Your task to perform on an android device: toggle data saver in the chrome app Image 0: 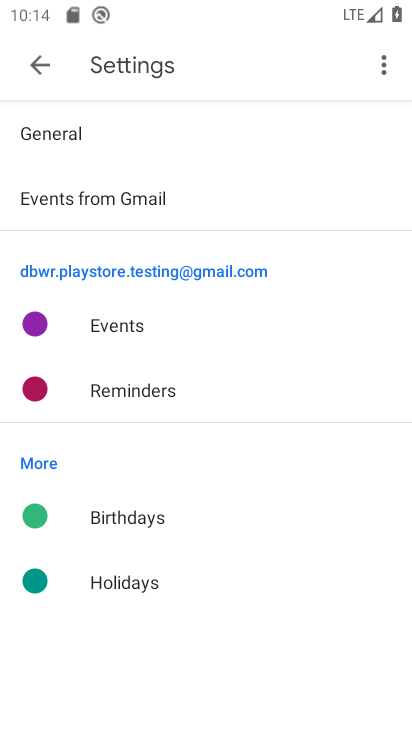
Step 0: press home button
Your task to perform on an android device: toggle data saver in the chrome app Image 1: 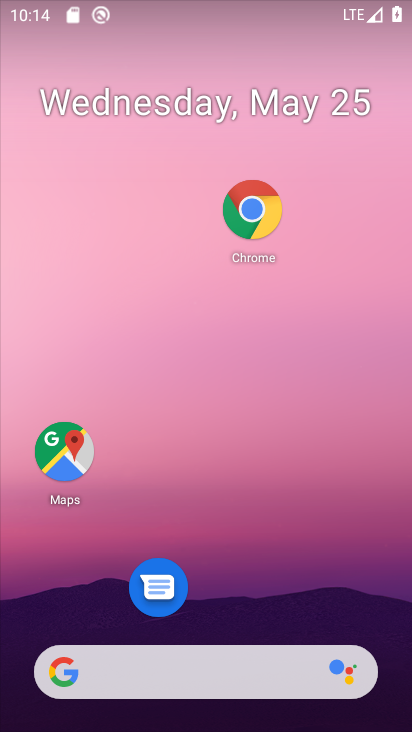
Step 1: drag from (235, 591) to (287, 171)
Your task to perform on an android device: toggle data saver in the chrome app Image 2: 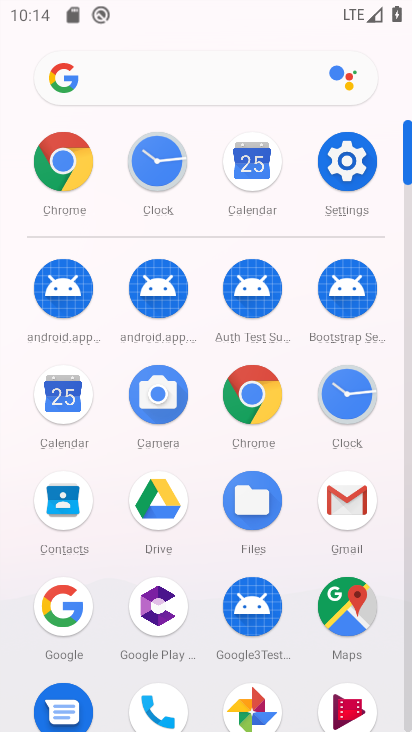
Step 2: click (271, 411)
Your task to perform on an android device: toggle data saver in the chrome app Image 3: 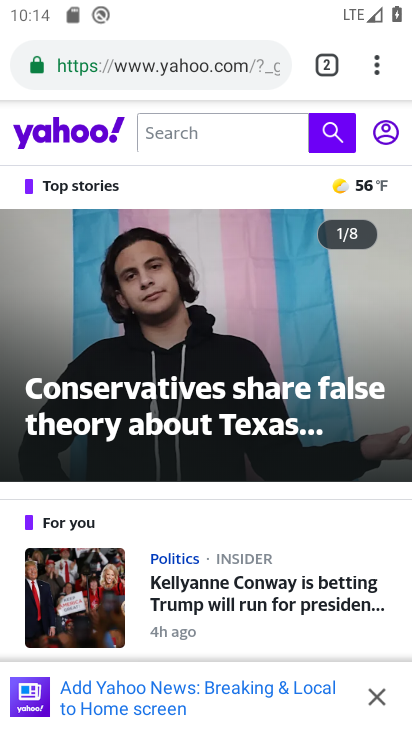
Step 3: click (373, 72)
Your task to perform on an android device: toggle data saver in the chrome app Image 4: 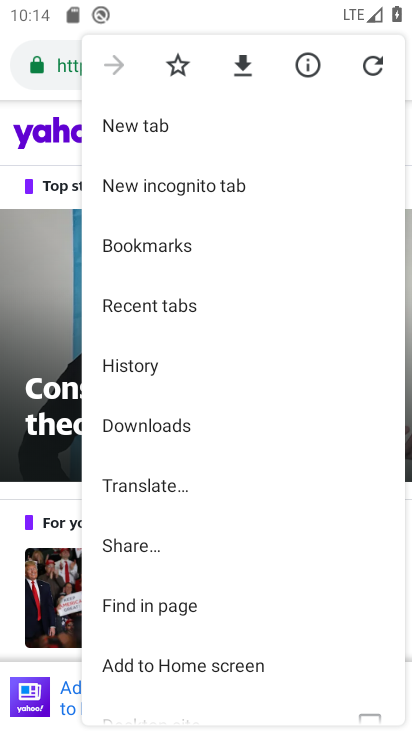
Step 4: drag from (184, 656) to (239, 307)
Your task to perform on an android device: toggle data saver in the chrome app Image 5: 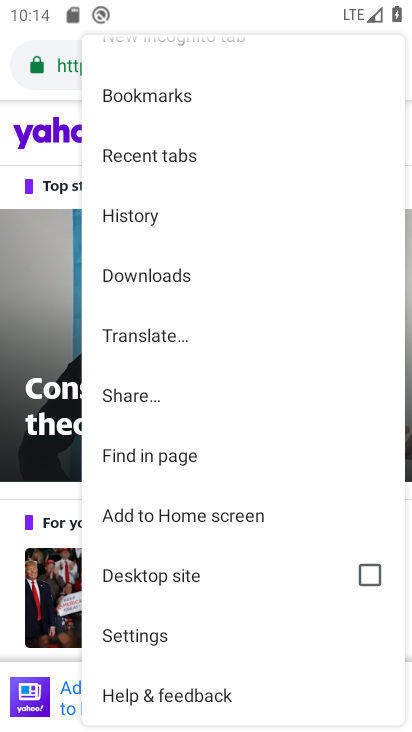
Step 5: click (172, 635)
Your task to perform on an android device: toggle data saver in the chrome app Image 6: 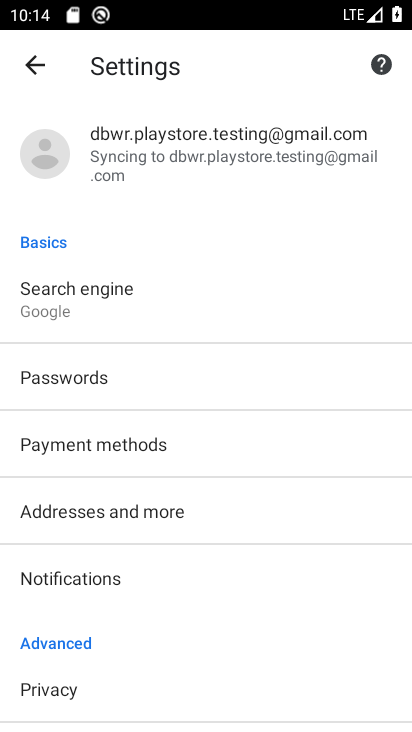
Step 6: drag from (109, 597) to (125, 283)
Your task to perform on an android device: toggle data saver in the chrome app Image 7: 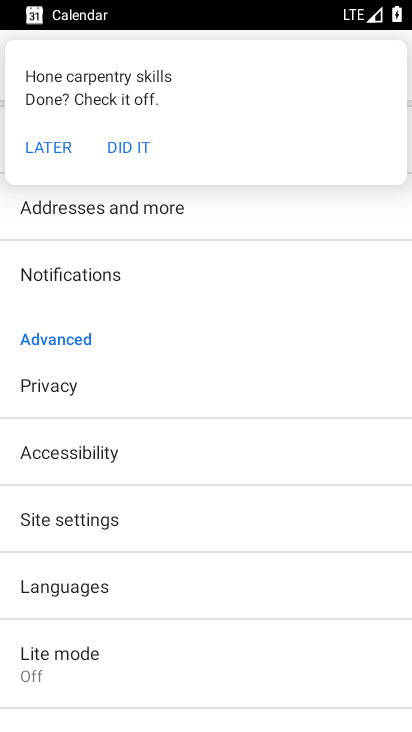
Step 7: click (74, 657)
Your task to perform on an android device: toggle data saver in the chrome app Image 8: 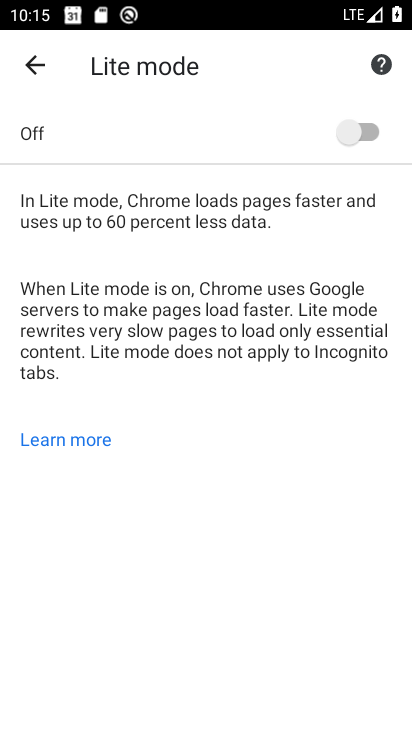
Step 8: click (383, 133)
Your task to perform on an android device: toggle data saver in the chrome app Image 9: 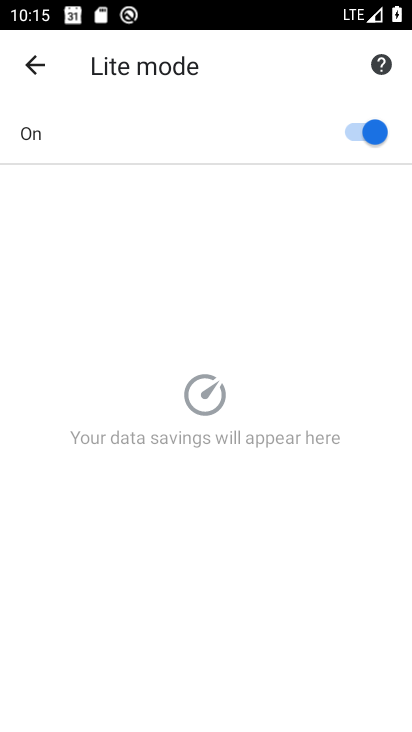
Step 9: task complete